Your task to perform on an android device: search for starred emails in the gmail app Image 0: 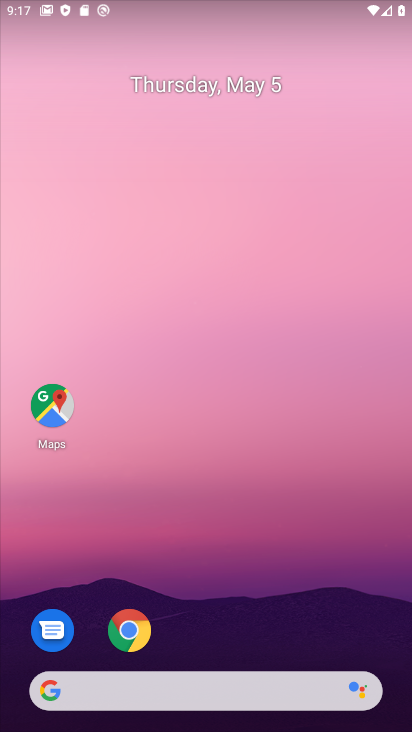
Step 0: drag from (202, 599) to (223, 116)
Your task to perform on an android device: search for starred emails in the gmail app Image 1: 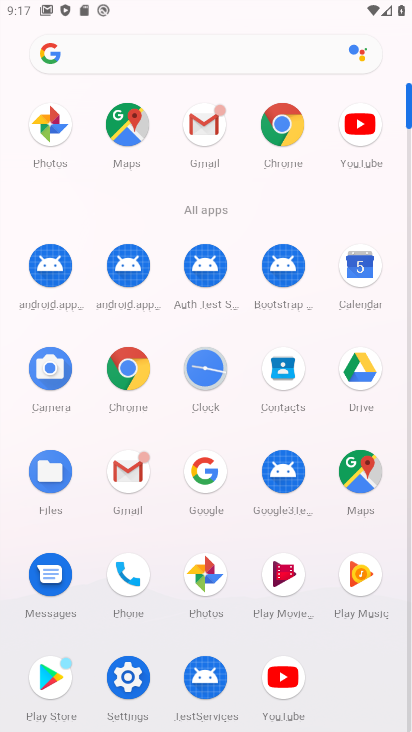
Step 1: click (143, 475)
Your task to perform on an android device: search for starred emails in the gmail app Image 2: 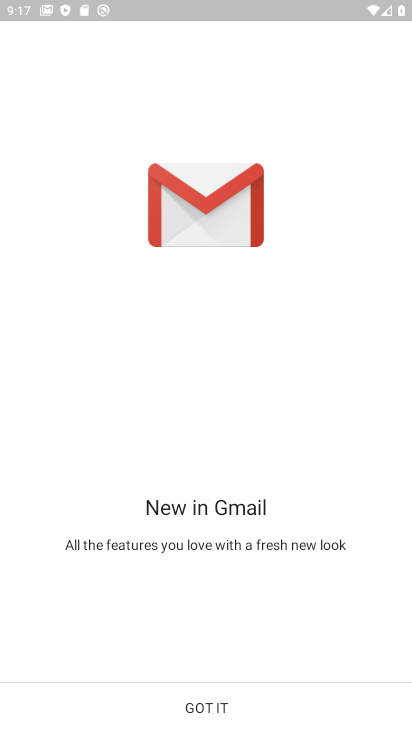
Step 2: click (205, 703)
Your task to perform on an android device: search for starred emails in the gmail app Image 3: 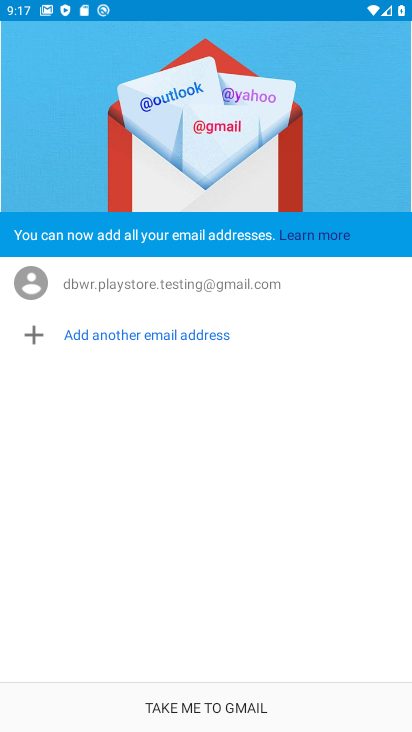
Step 3: click (205, 703)
Your task to perform on an android device: search for starred emails in the gmail app Image 4: 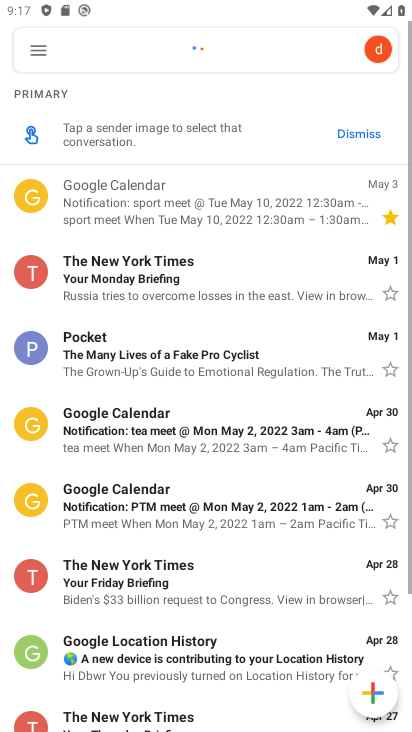
Step 4: click (45, 57)
Your task to perform on an android device: search for starred emails in the gmail app Image 5: 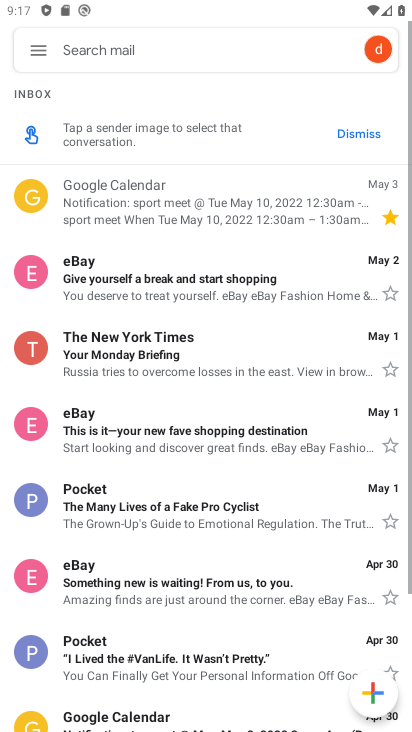
Step 5: click (45, 57)
Your task to perform on an android device: search for starred emails in the gmail app Image 6: 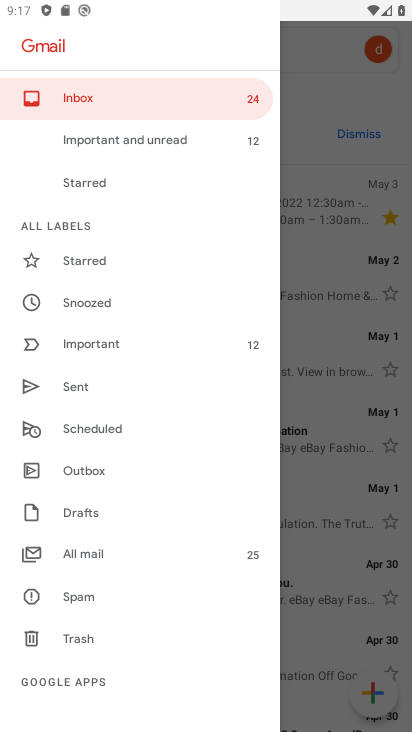
Step 6: click (87, 267)
Your task to perform on an android device: search for starred emails in the gmail app Image 7: 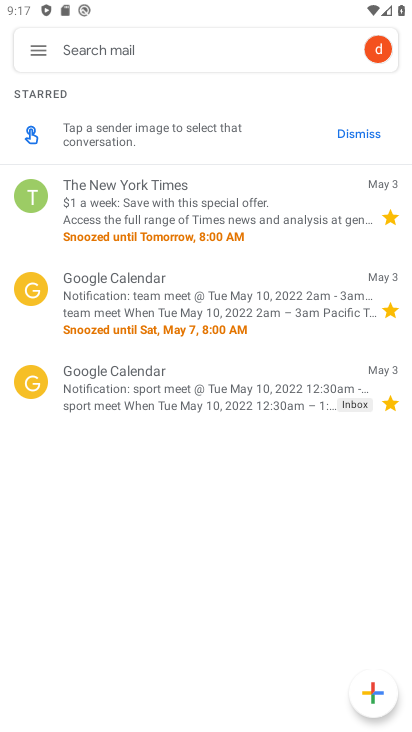
Step 7: task complete